Your task to perform on an android device: open app "Gboard" Image 0: 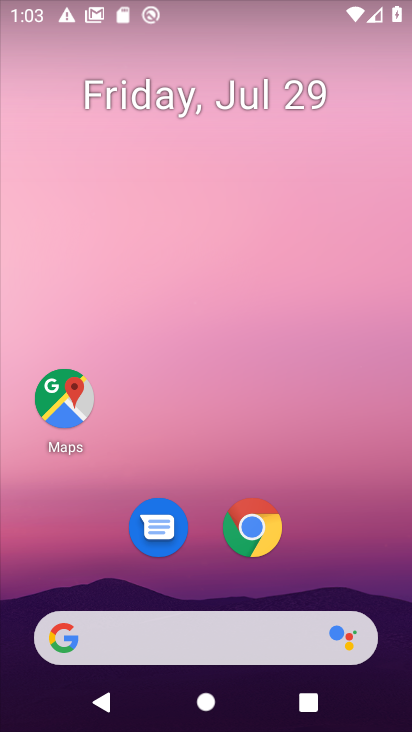
Step 0: drag from (250, 724) to (247, 2)
Your task to perform on an android device: open app "Gboard" Image 1: 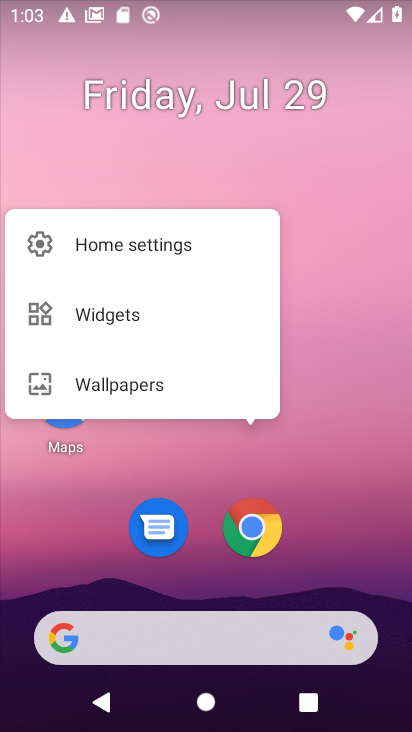
Step 1: click (259, 435)
Your task to perform on an android device: open app "Gboard" Image 2: 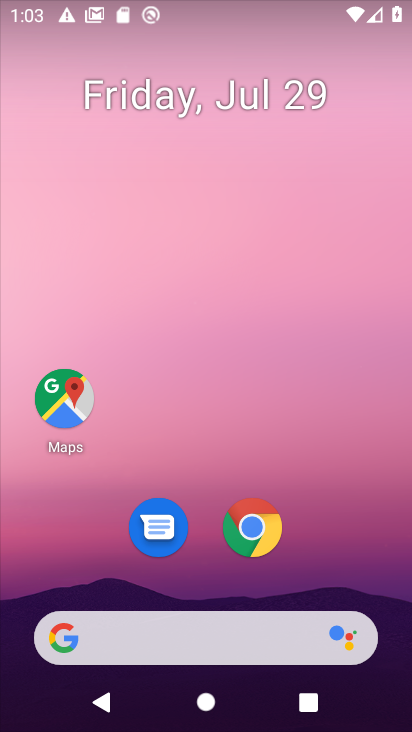
Step 2: drag from (245, 729) to (245, 84)
Your task to perform on an android device: open app "Gboard" Image 3: 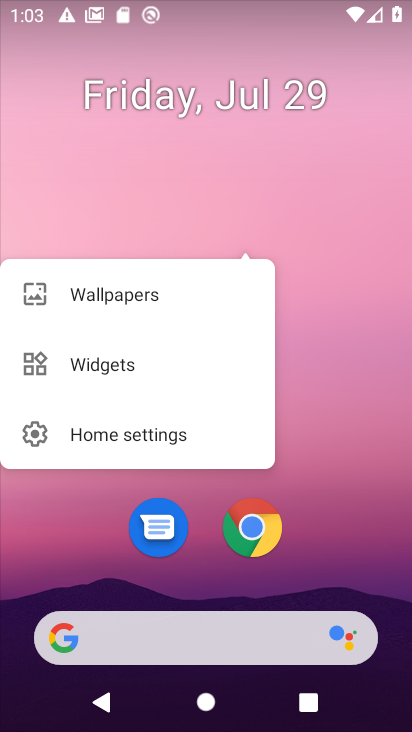
Step 3: click (268, 197)
Your task to perform on an android device: open app "Gboard" Image 4: 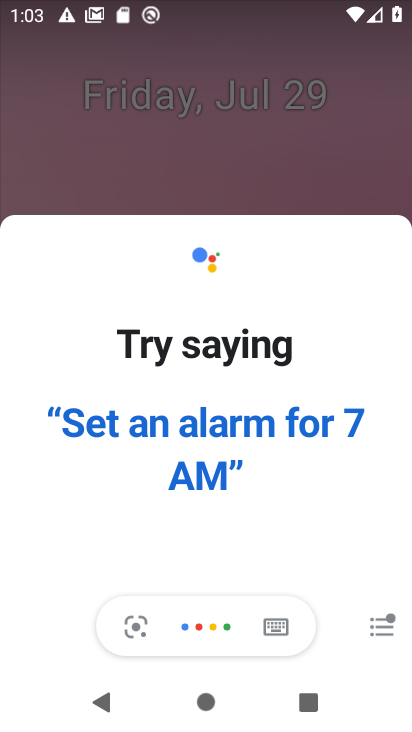
Step 4: press home button
Your task to perform on an android device: open app "Gboard" Image 5: 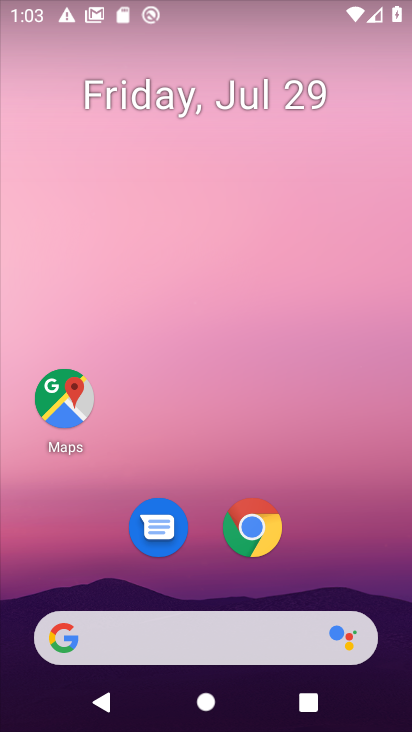
Step 5: drag from (248, 727) to (247, 19)
Your task to perform on an android device: open app "Gboard" Image 6: 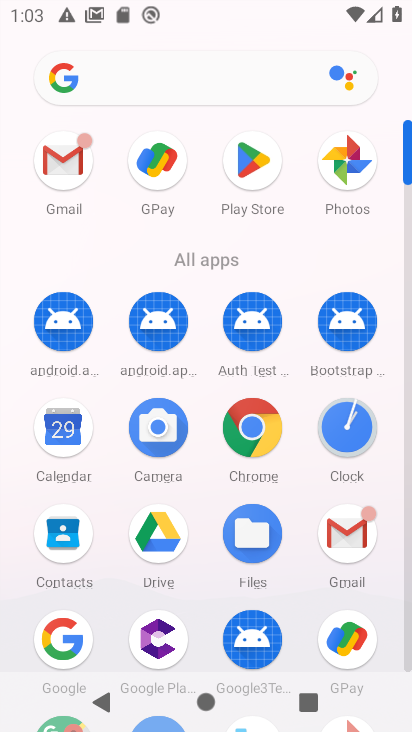
Step 6: drag from (281, 431) to (279, 200)
Your task to perform on an android device: open app "Gboard" Image 7: 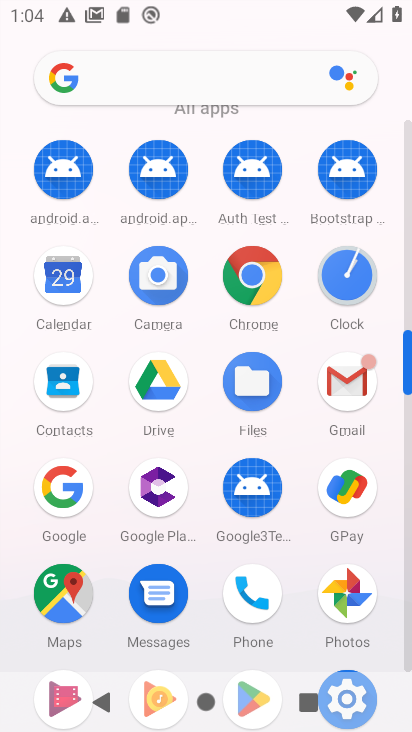
Step 7: drag from (293, 629) to (296, 221)
Your task to perform on an android device: open app "Gboard" Image 8: 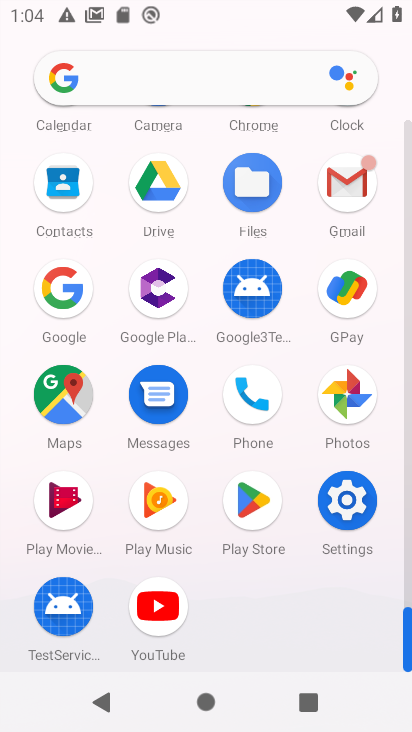
Step 8: click (256, 500)
Your task to perform on an android device: open app "Gboard" Image 9: 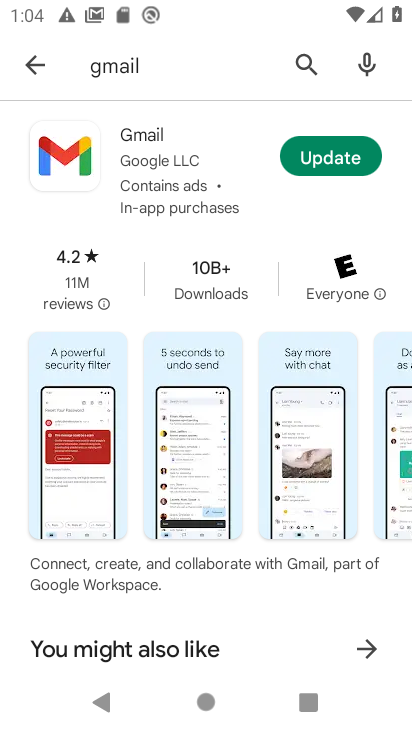
Step 9: click (302, 66)
Your task to perform on an android device: open app "Gboard" Image 10: 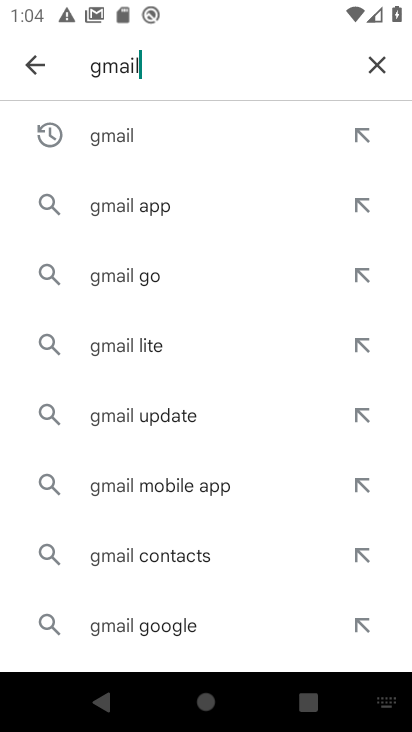
Step 10: click (377, 54)
Your task to perform on an android device: open app "Gboard" Image 11: 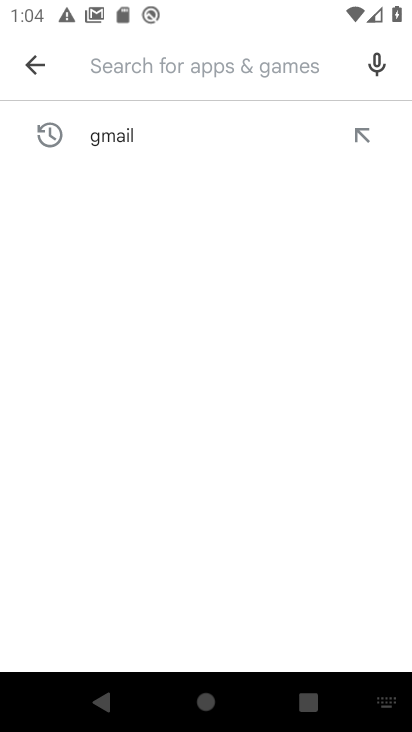
Step 11: type "Gboard"
Your task to perform on an android device: open app "Gboard" Image 12: 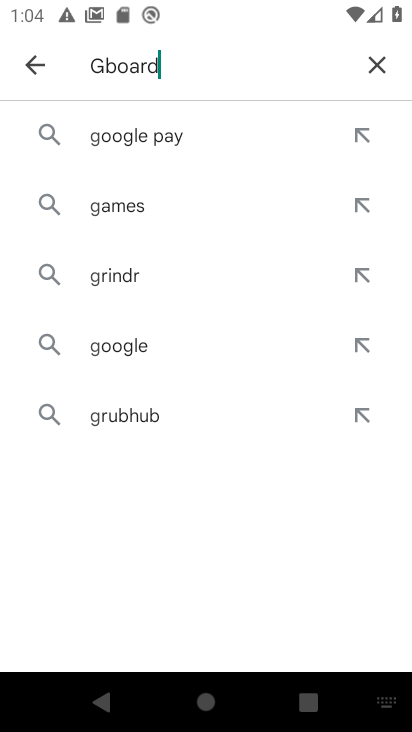
Step 12: type ""
Your task to perform on an android device: open app "Gboard" Image 13: 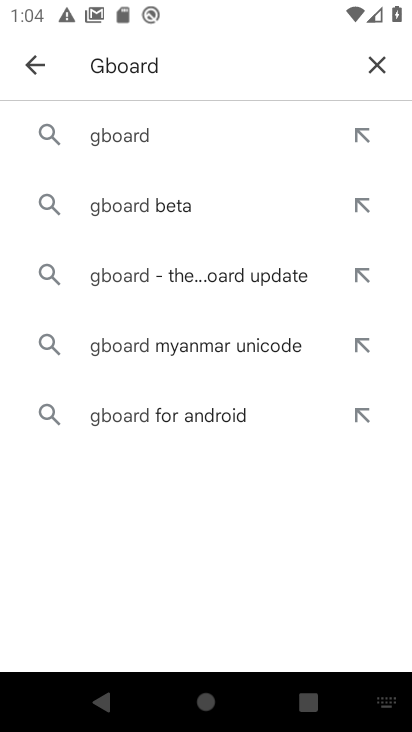
Step 13: click (132, 134)
Your task to perform on an android device: open app "Gboard" Image 14: 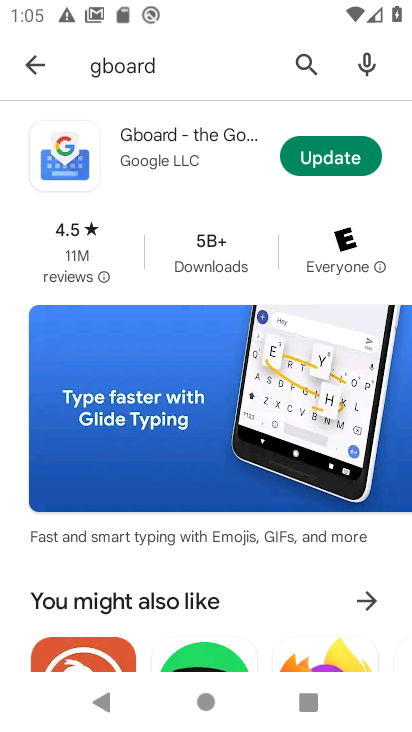
Step 14: task complete